Your task to perform on an android device: set the timer Image 0: 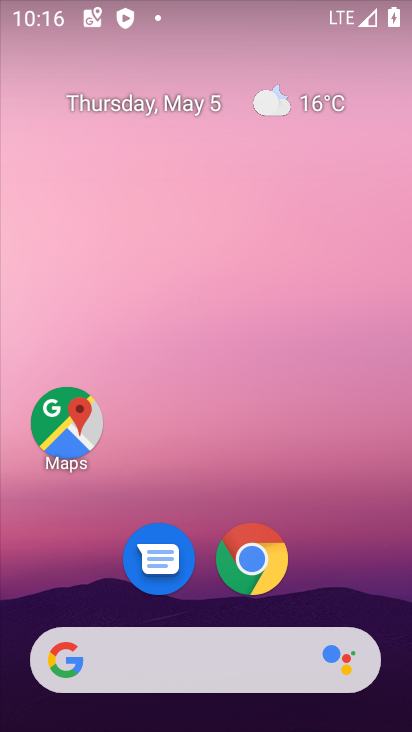
Step 0: drag from (194, 604) to (222, 80)
Your task to perform on an android device: set the timer Image 1: 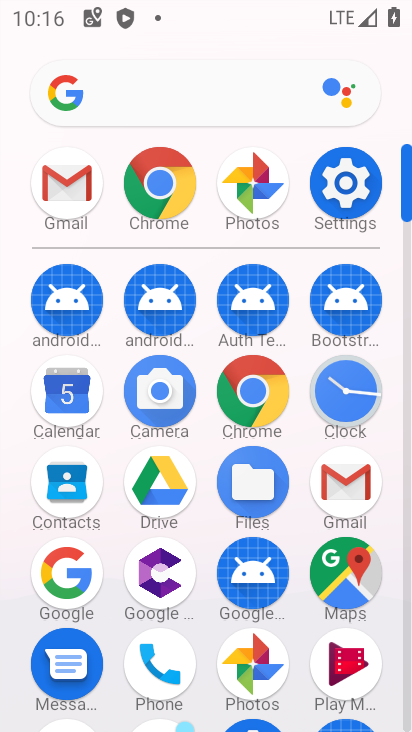
Step 1: click (335, 395)
Your task to perform on an android device: set the timer Image 2: 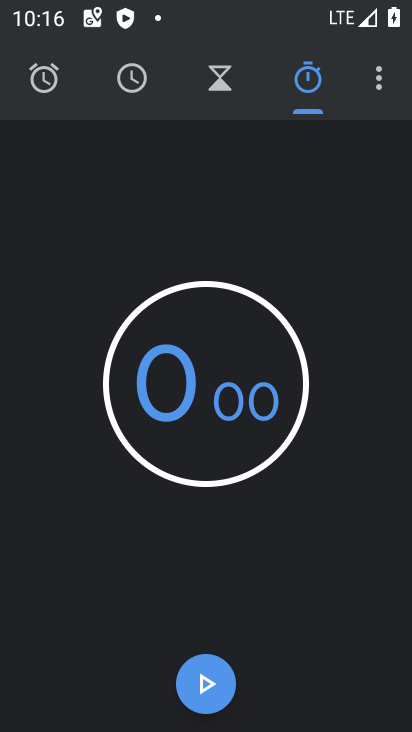
Step 2: click (232, 90)
Your task to perform on an android device: set the timer Image 3: 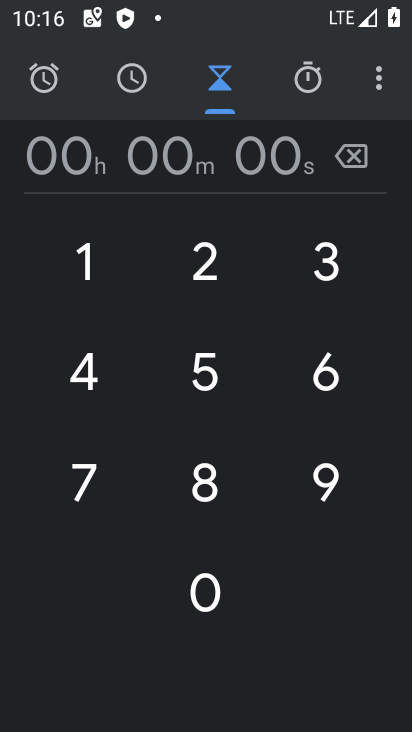
Step 3: click (202, 376)
Your task to perform on an android device: set the timer Image 4: 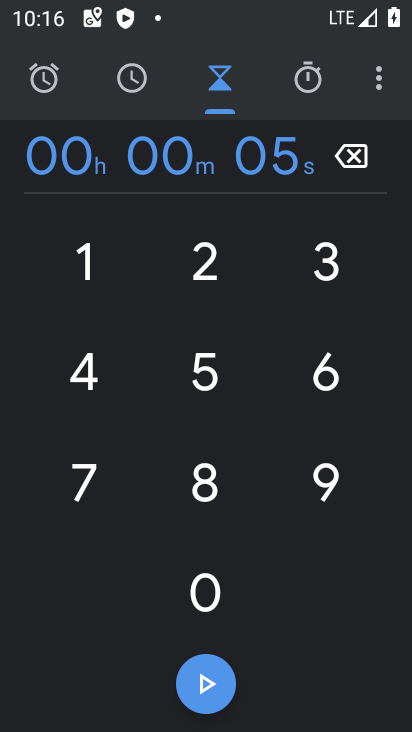
Step 4: click (92, 369)
Your task to perform on an android device: set the timer Image 5: 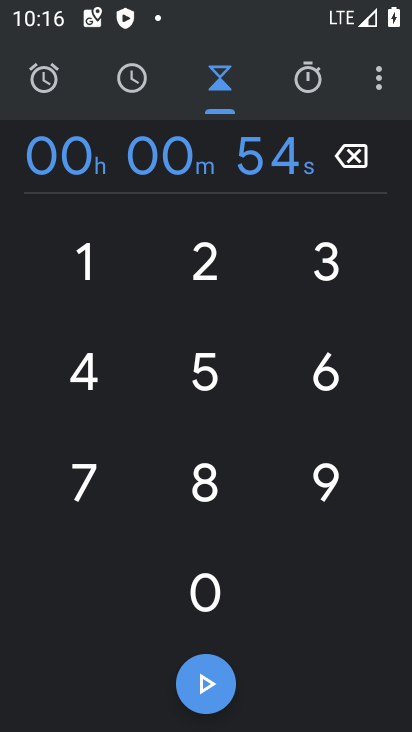
Step 5: click (324, 368)
Your task to perform on an android device: set the timer Image 6: 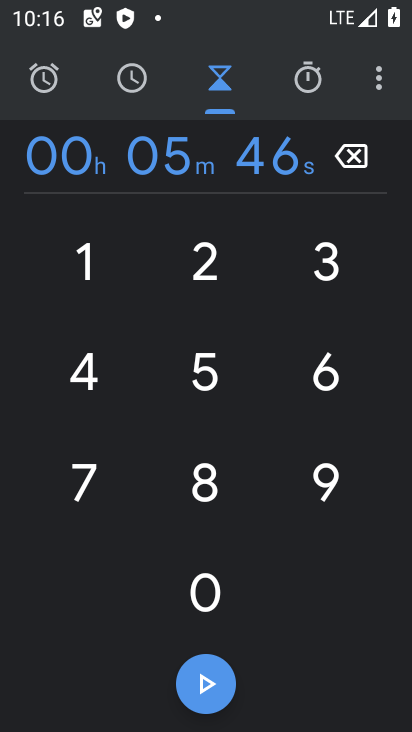
Step 6: click (221, 663)
Your task to perform on an android device: set the timer Image 7: 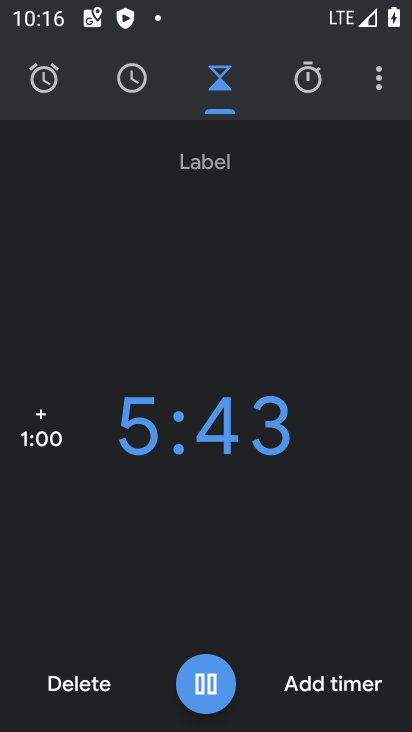
Step 7: task complete